Your task to perform on an android device: open app "TextNow: Call + Text Unlimited" Image 0: 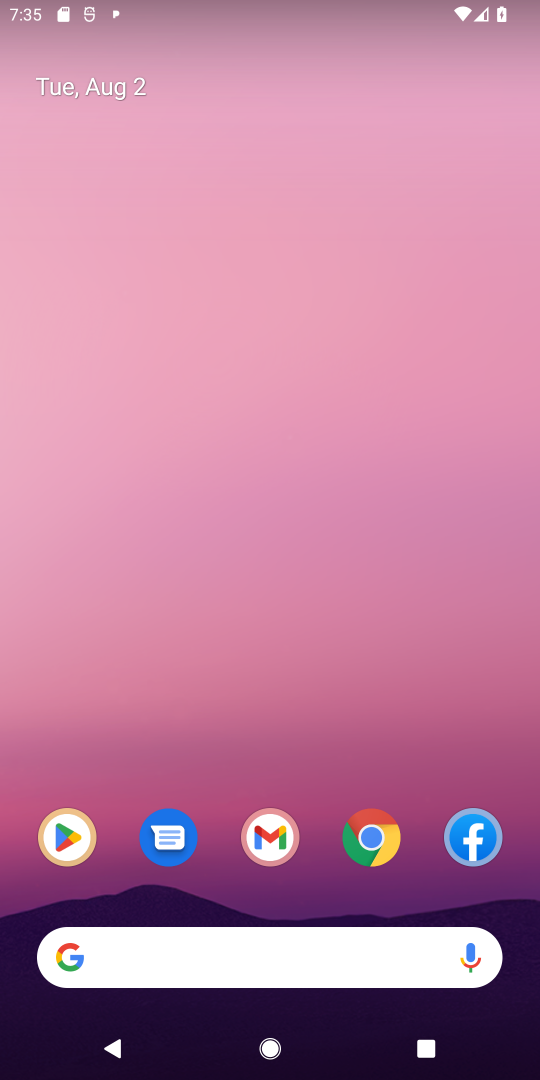
Step 0: click (53, 849)
Your task to perform on an android device: open app "TextNow: Call + Text Unlimited" Image 1: 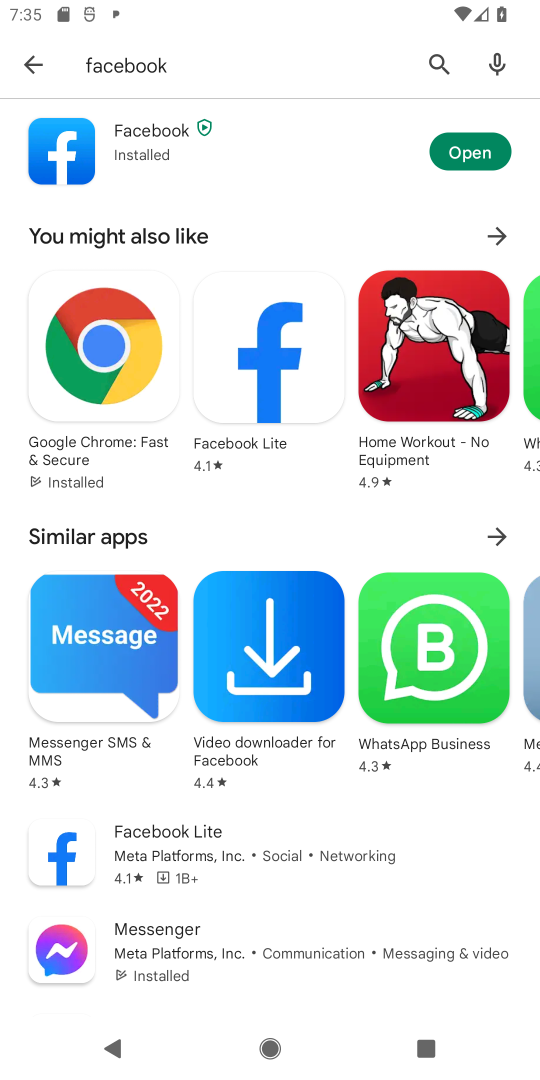
Step 1: click (416, 59)
Your task to perform on an android device: open app "TextNow: Call + Text Unlimited" Image 2: 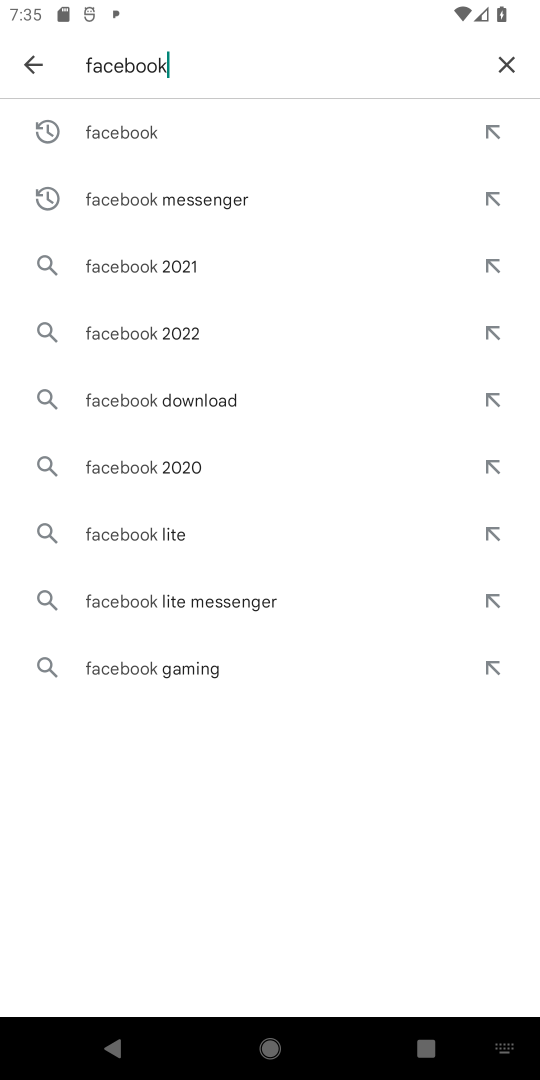
Step 2: click (516, 59)
Your task to perform on an android device: open app "TextNow: Call + Text Unlimited" Image 3: 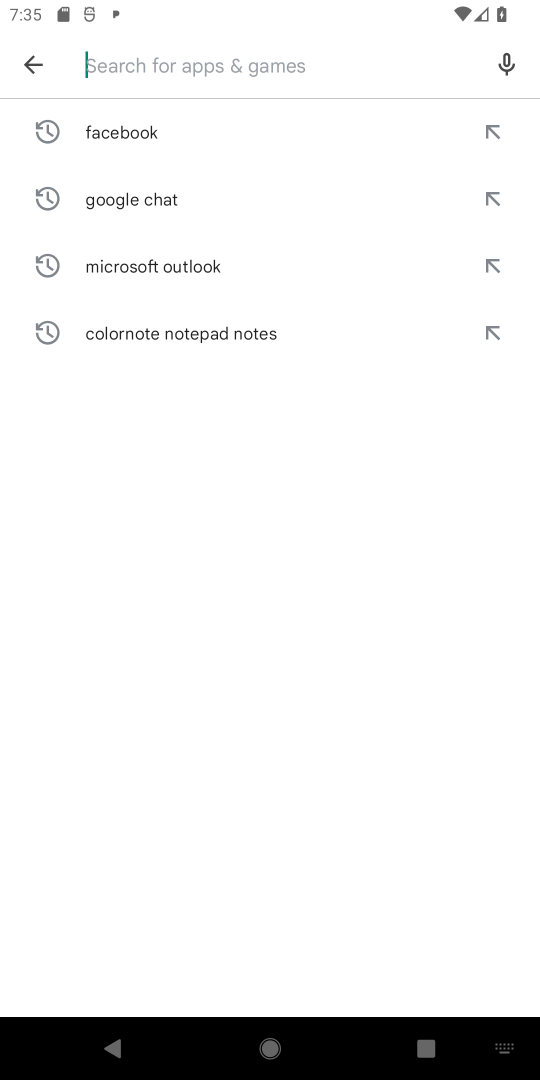
Step 3: type "TextNow: Call + Text Unlimited"
Your task to perform on an android device: open app "TextNow: Call + Text Unlimited" Image 4: 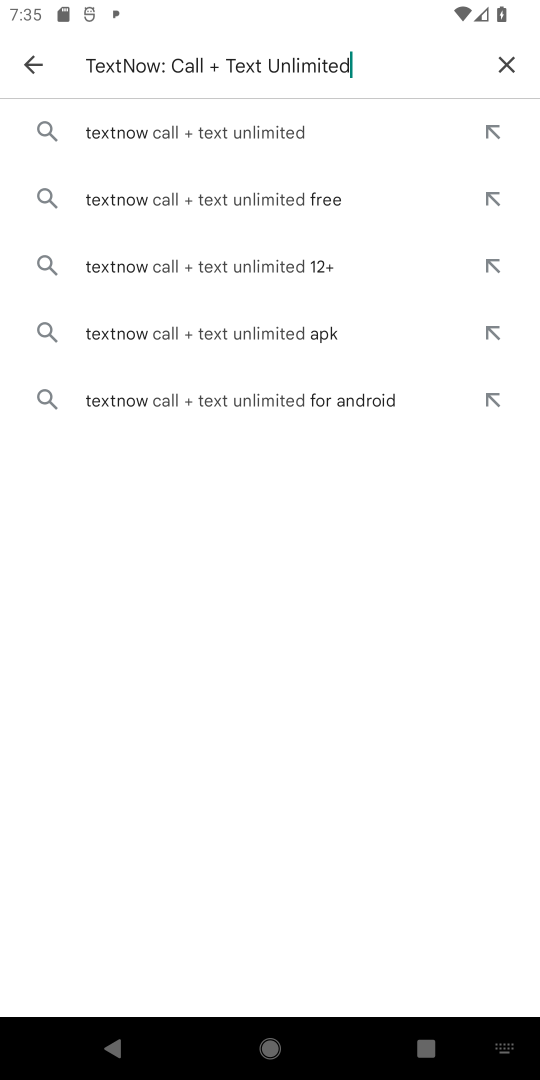
Step 4: click (216, 144)
Your task to perform on an android device: open app "TextNow: Call + Text Unlimited" Image 5: 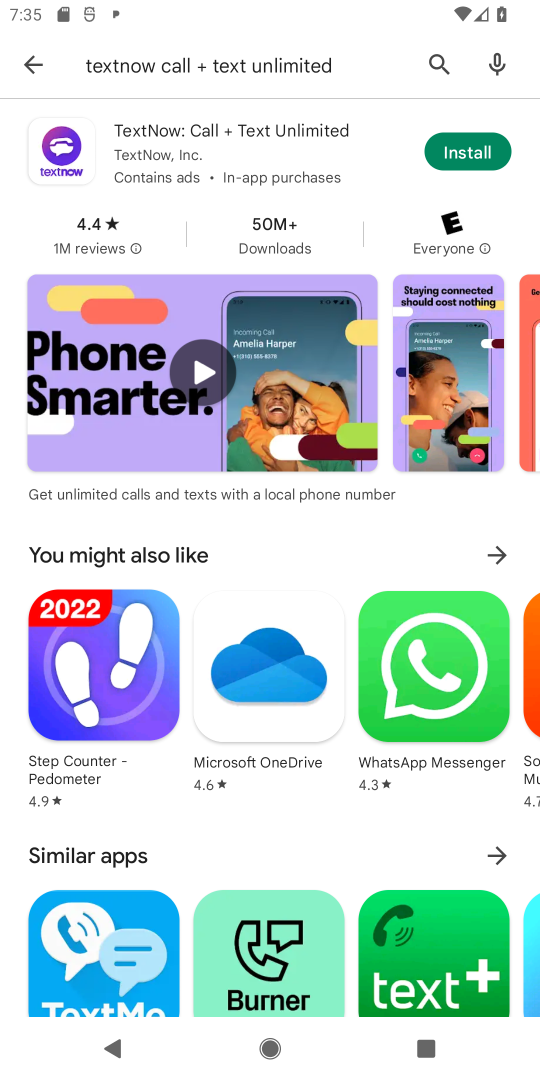
Step 5: task complete